Your task to perform on an android device: What's the weather? Image 0: 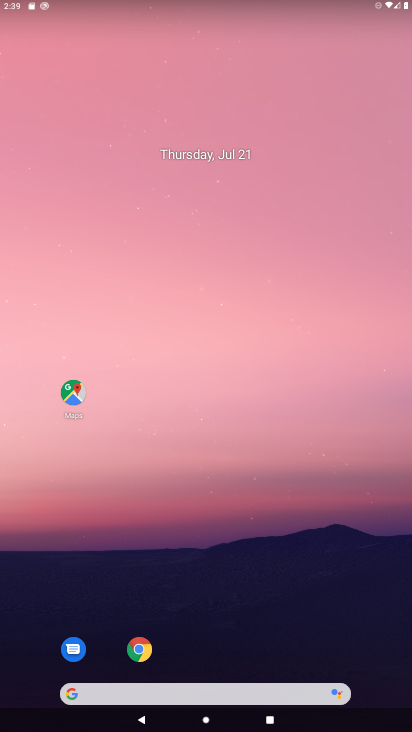
Step 0: drag from (354, 534) to (407, 6)
Your task to perform on an android device: What's the weather? Image 1: 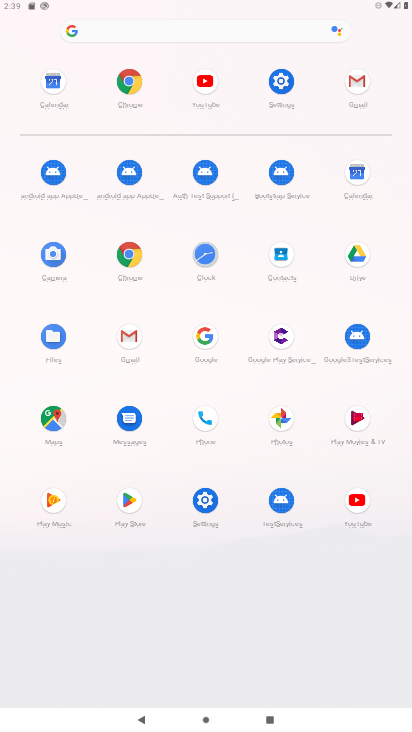
Step 1: click (209, 334)
Your task to perform on an android device: What's the weather? Image 2: 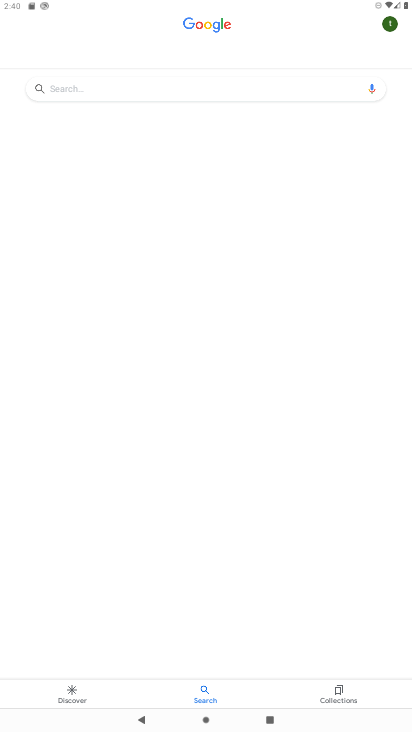
Step 2: press home button
Your task to perform on an android device: What's the weather? Image 3: 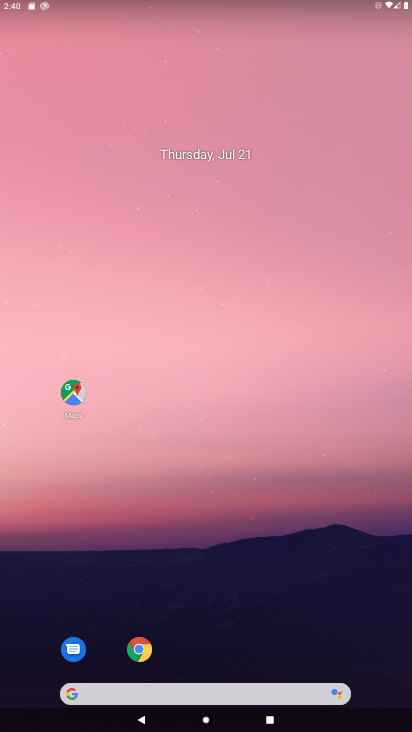
Step 3: drag from (263, 559) to (232, 49)
Your task to perform on an android device: What's the weather? Image 4: 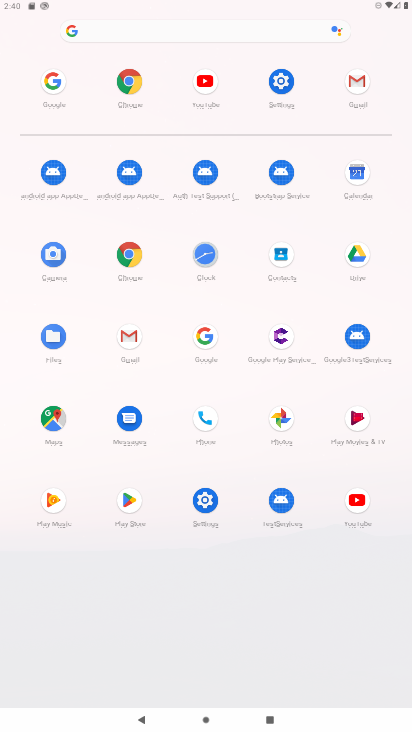
Step 4: click (213, 335)
Your task to perform on an android device: What's the weather? Image 5: 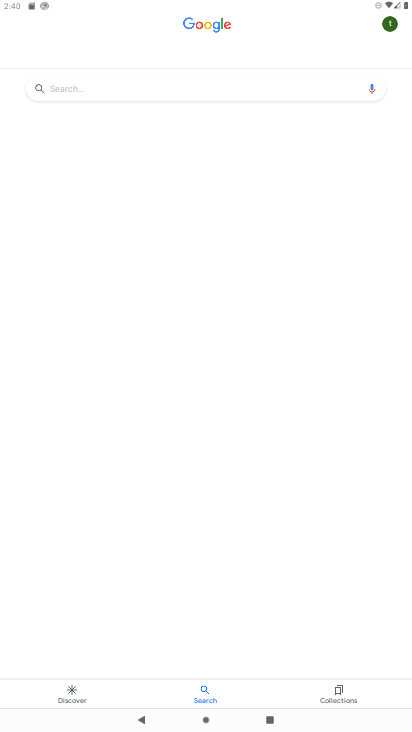
Step 5: click (212, 94)
Your task to perform on an android device: What's the weather? Image 6: 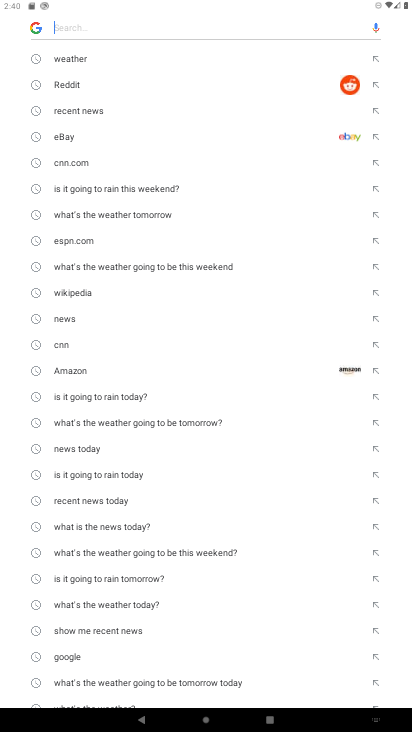
Step 6: click (65, 57)
Your task to perform on an android device: What's the weather? Image 7: 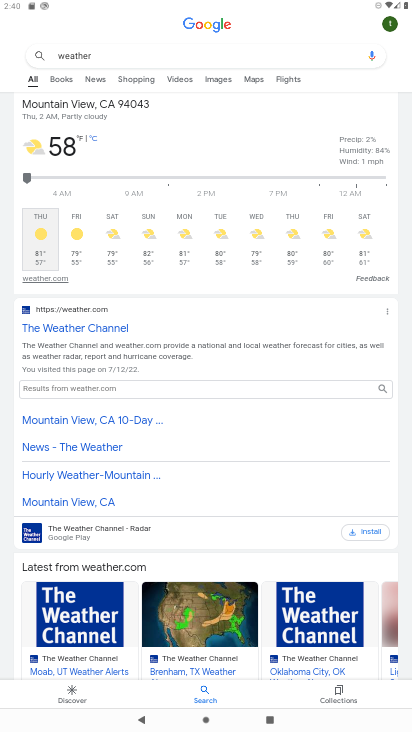
Step 7: task complete